Your task to perform on an android device: Open accessibility settings Image 0: 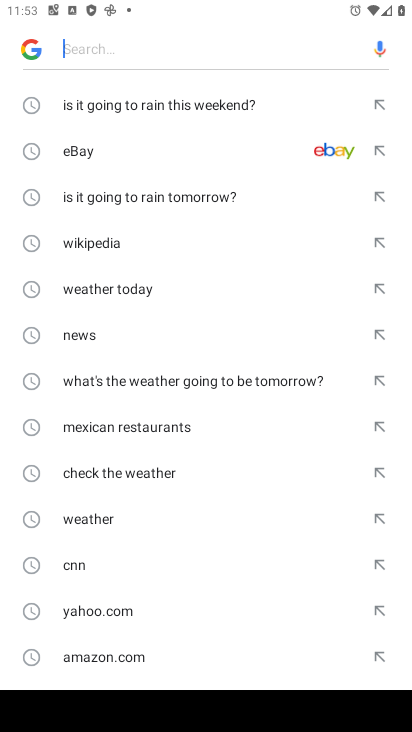
Step 0: press home button
Your task to perform on an android device: Open accessibility settings Image 1: 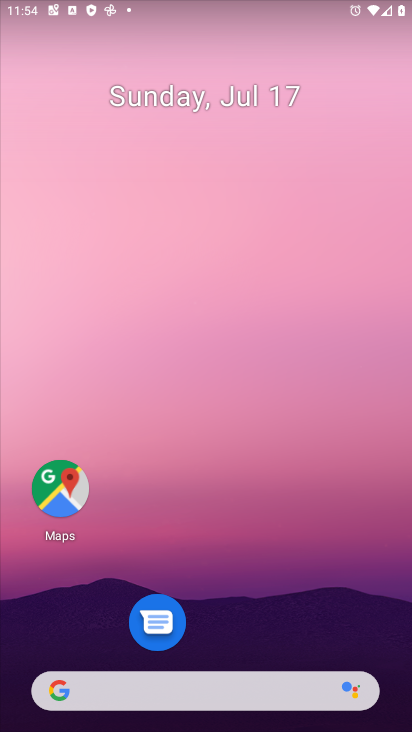
Step 1: drag from (239, 703) to (319, 159)
Your task to perform on an android device: Open accessibility settings Image 2: 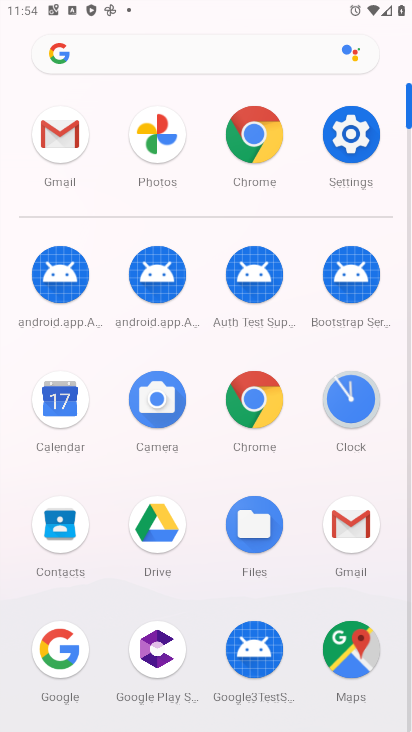
Step 2: click (340, 125)
Your task to perform on an android device: Open accessibility settings Image 3: 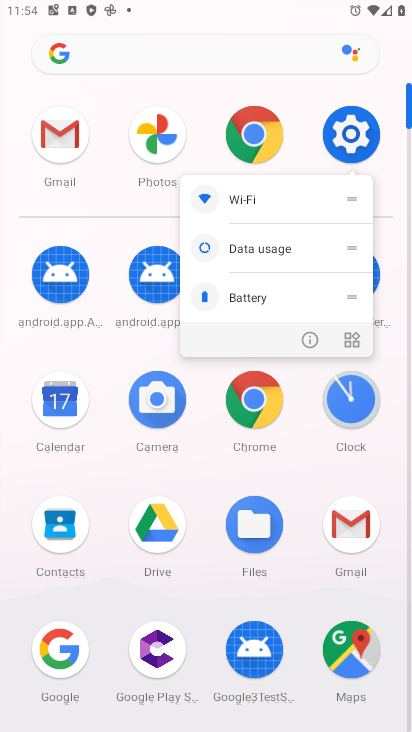
Step 3: click (345, 133)
Your task to perform on an android device: Open accessibility settings Image 4: 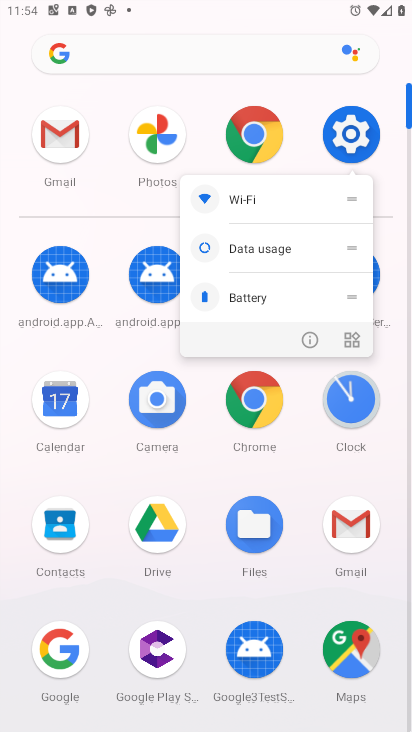
Step 4: click (345, 133)
Your task to perform on an android device: Open accessibility settings Image 5: 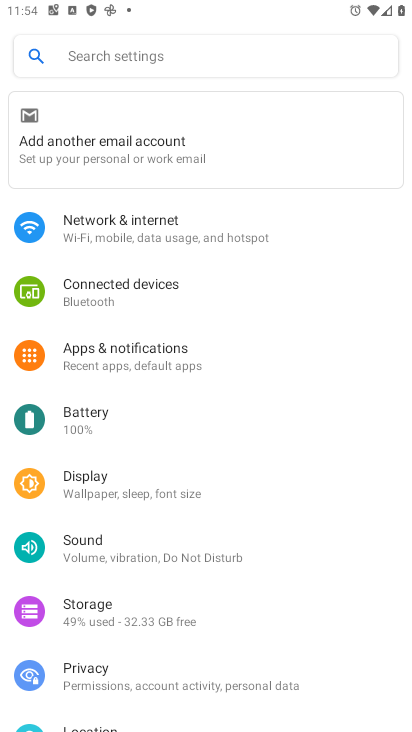
Step 5: drag from (243, 610) to (331, 56)
Your task to perform on an android device: Open accessibility settings Image 6: 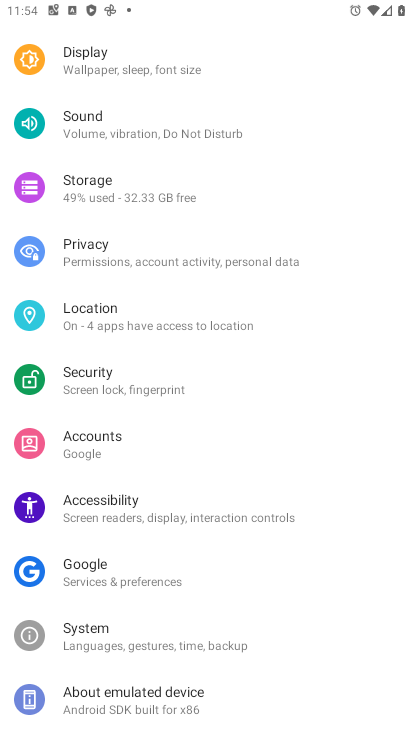
Step 6: click (113, 515)
Your task to perform on an android device: Open accessibility settings Image 7: 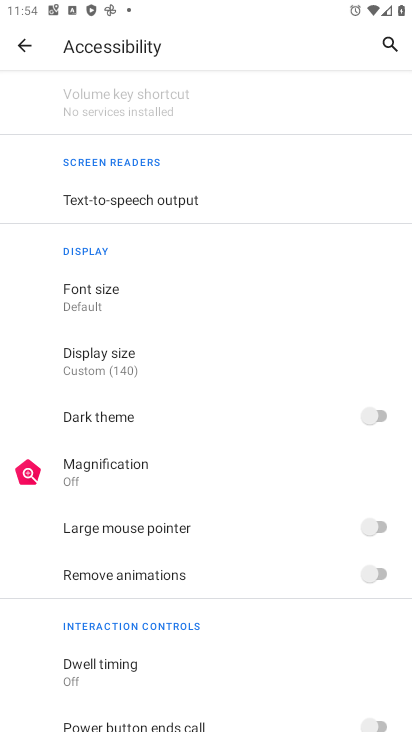
Step 7: task complete